Your task to perform on an android device: turn off translation in the chrome app Image 0: 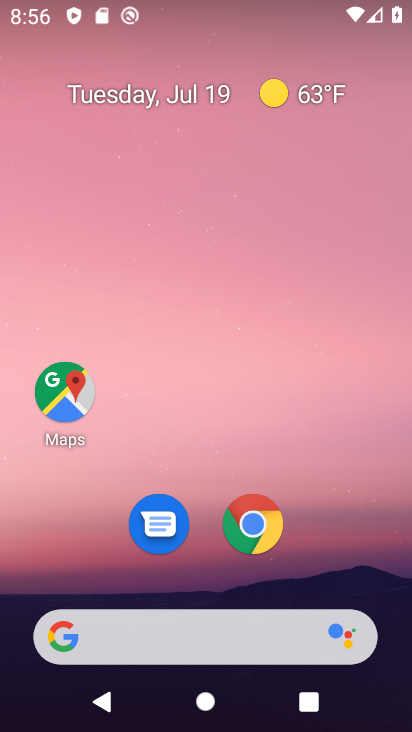
Step 0: click (256, 514)
Your task to perform on an android device: turn off translation in the chrome app Image 1: 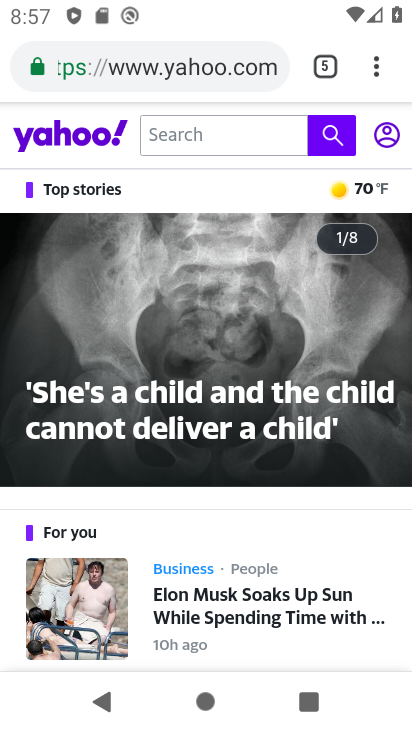
Step 1: drag from (371, 70) to (220, 529)
Your task to perform on an android device: turn off translation in the chrome app Image 2: 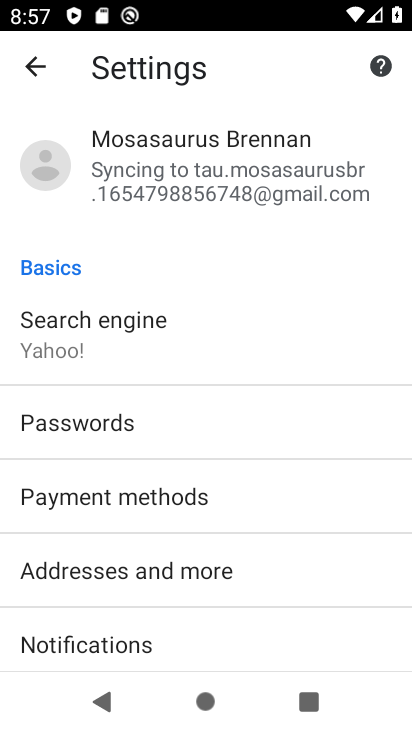
Step 2: drag from (206, 629) to (317, 118)
Your task to perform on an android device: turn off translation in the chrome app Image 3: 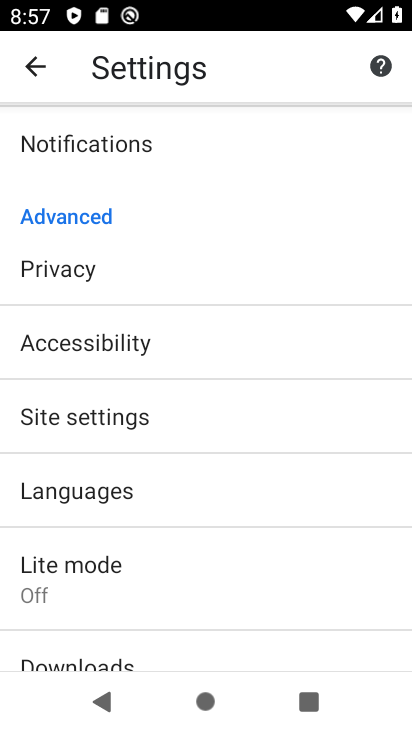
Step 3: click (144, 489)
Your task to perform on an android device: turn off translation in the chrome app Image 4: 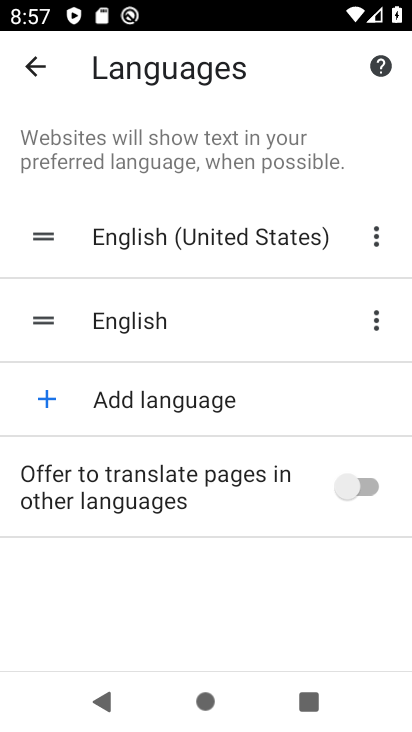
Step 4: task complete